Your task to perform on an android device: Open the calendar app, open the side menu, and click the "Day" option Image 0: 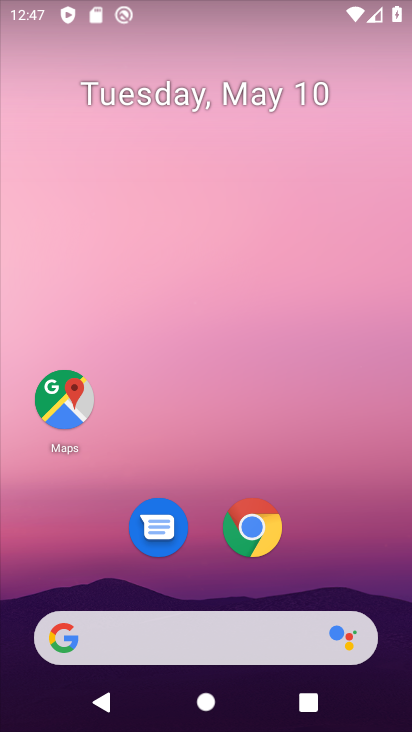
Step 0: drag from (310, 586) to (286, 202)
Your task to perform on an android device: Open the calendar app, open the side menu, and click the "Day" option Image 1: 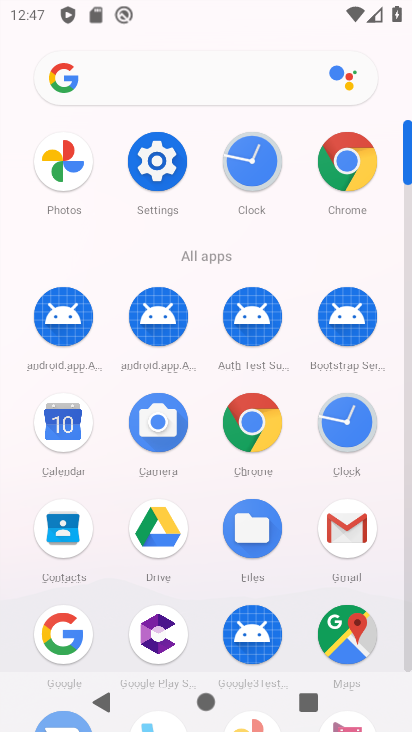
Step 1: click (62, 449)
Your task to perform on an android device: Open the calendar app, open the side menu, and click the "Day" option Image 2: 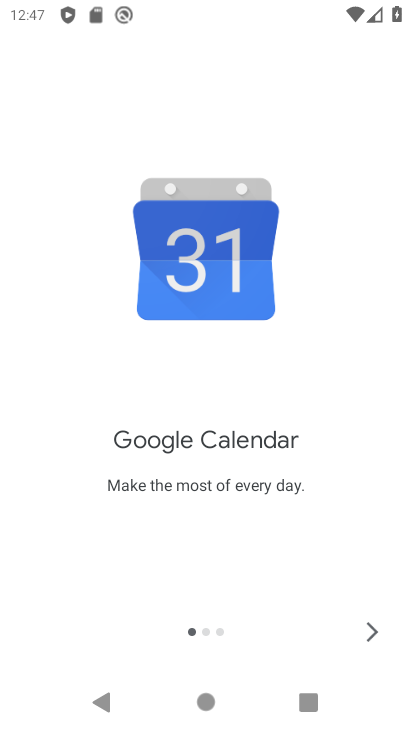
Step 2: click (356, 638)
Your task to perform on an android device: Open the calendar app, open the side menu, and click the "Day" option Image 3: 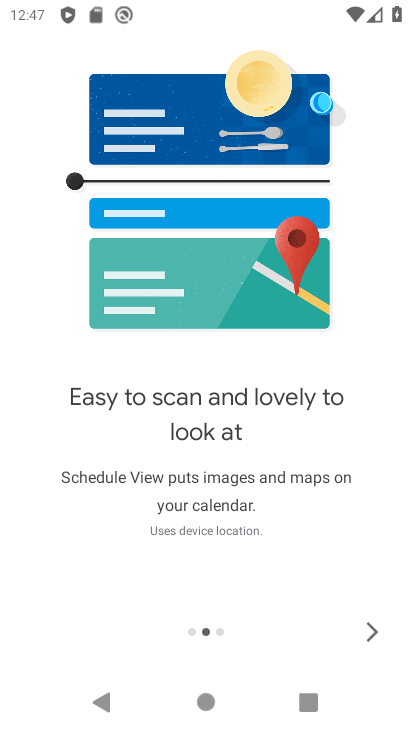
Step 3: click (357, 638)
Your task to perform on an android device: Open the calendar app, open the side menu, and click the "Day" option Image 4: 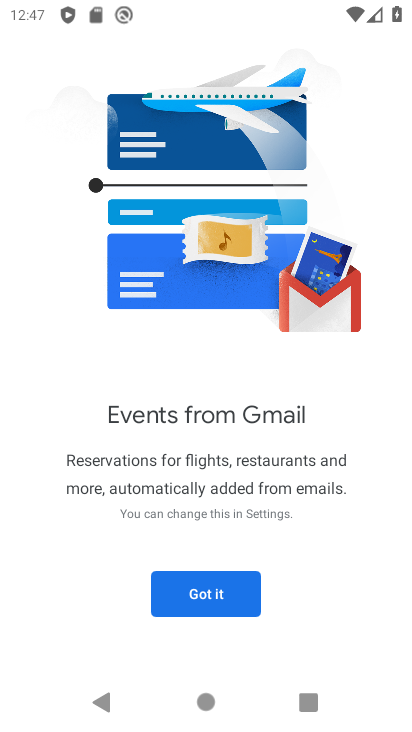
Step 4: click (175, 593)
Your task to perform on an android device: Open the calendar app, open the side menu, and click the "Day" option Image 5: 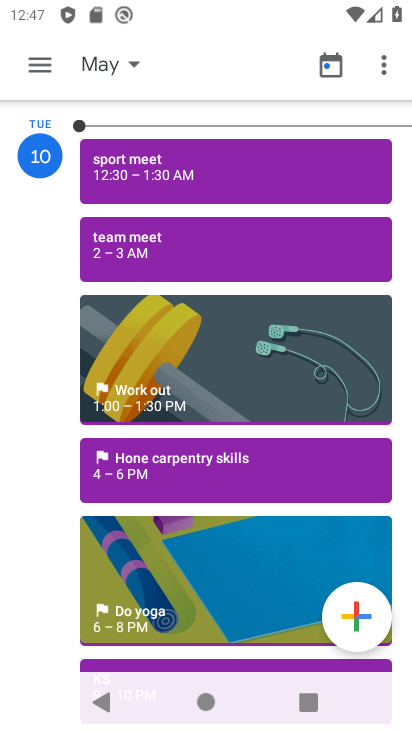
Step 5: click (43, 61)
Your task to perform on an android device: Open the calendar app, open the side menu, and click the "Day" option Image 6: 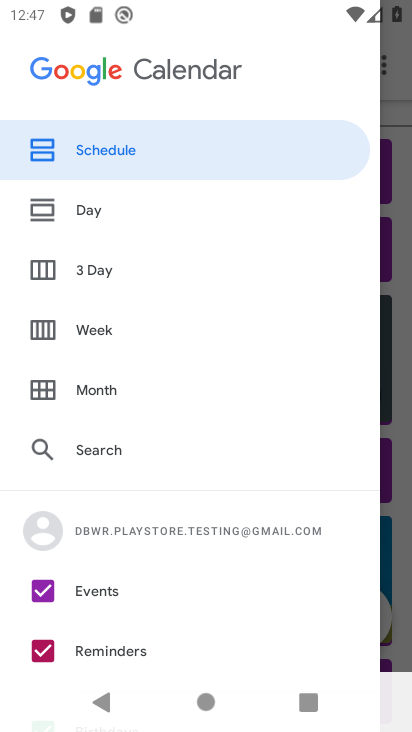
Step 6: click (130, 214)
Your task to perform on an android device: Open the calendar app, open the side menu, and click the "Day" option Image 7: 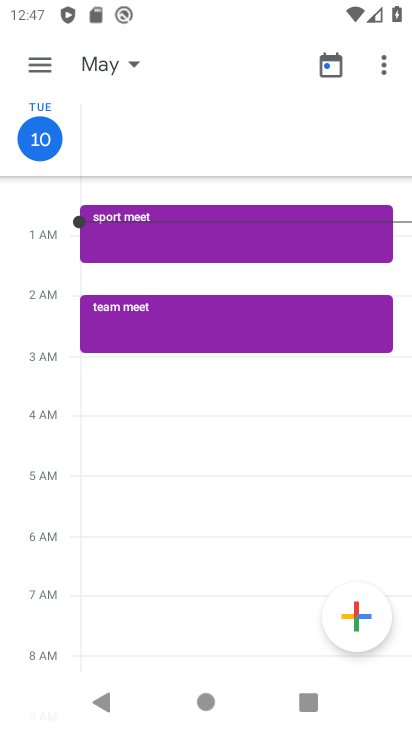
Step 7: task complete